Your task to perform on an android device: delete the emails in spam in the gmail app Image 0: 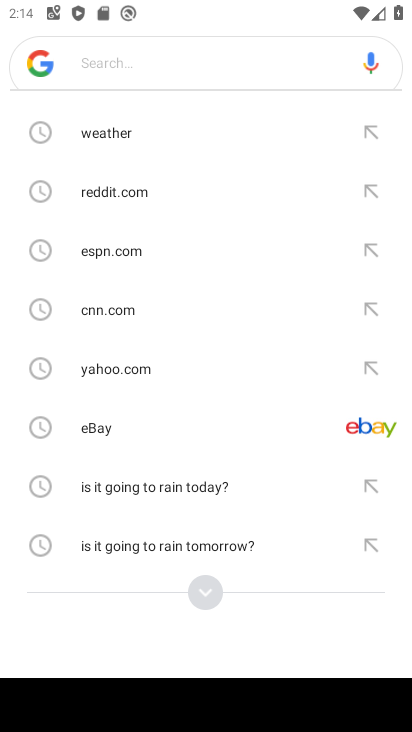
Step 0: press home button
Your task to perform on an android device: delete the emails in spam in the gmail app Image 1: 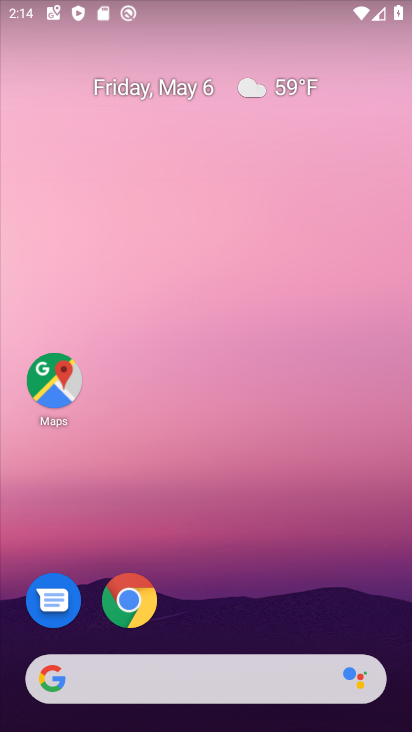
Step 1: drag from (218, 536) to (243, 28)
Your task to perform on an android device: delete the emails in spam in the gmail app Image 2: 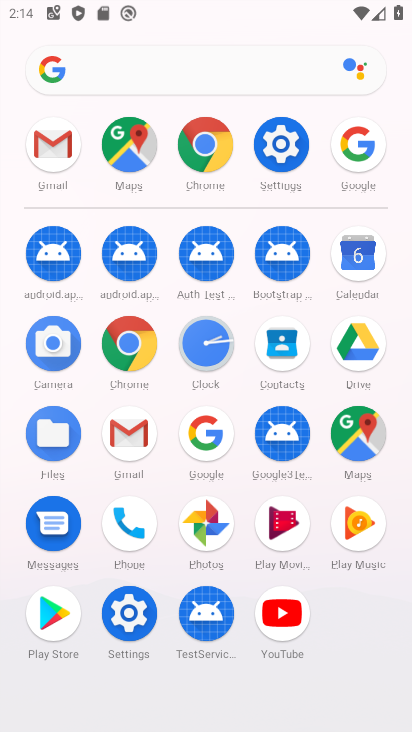
Step 2: click (56, 152)
Your task to perform on an android device: delete the emails in spam in the gmail app Image 3: 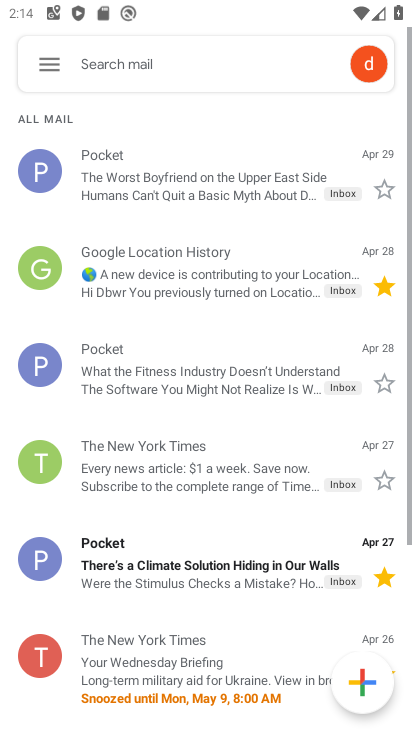
Step 3: click (51, 59)
Your task to perform on an android device: delete the emails in spam in the gmail app Image 4: 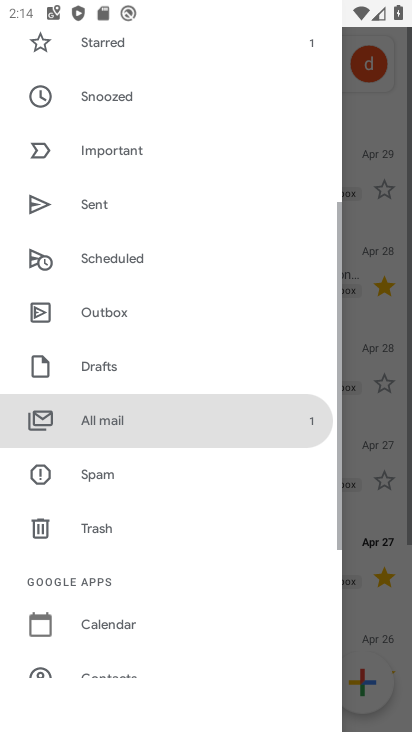
Step 4: click (97, 471)
Your task to perform on an android device: delete the emails in spam in the gmail app Image 5: 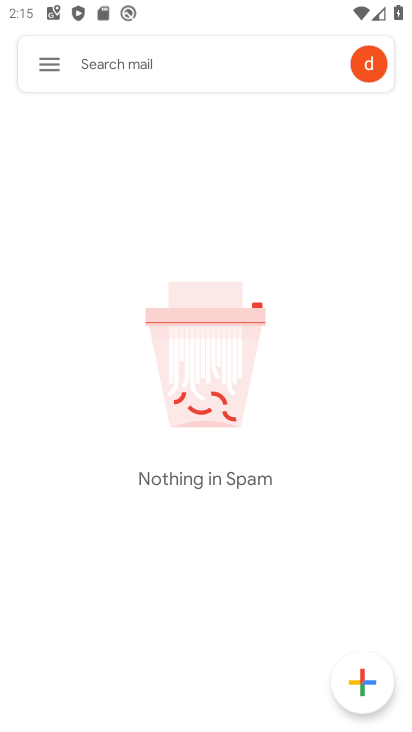
Step 5: task complete